Your task to perform on an android device: Open privacy settings Image 0: 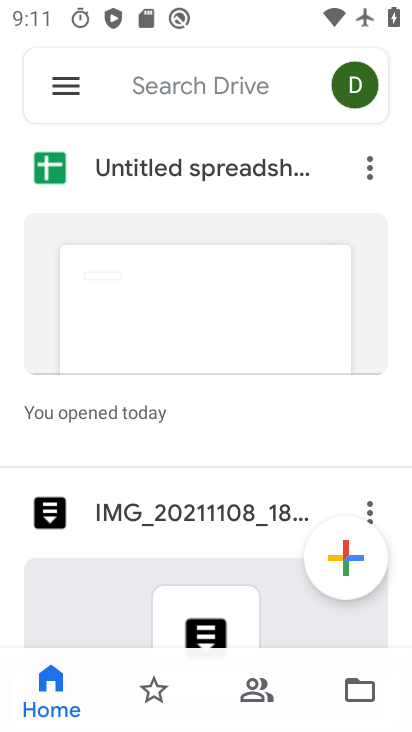
Step 0: press home button
Your task to perform on an android device: Open privacy settings Image 1: 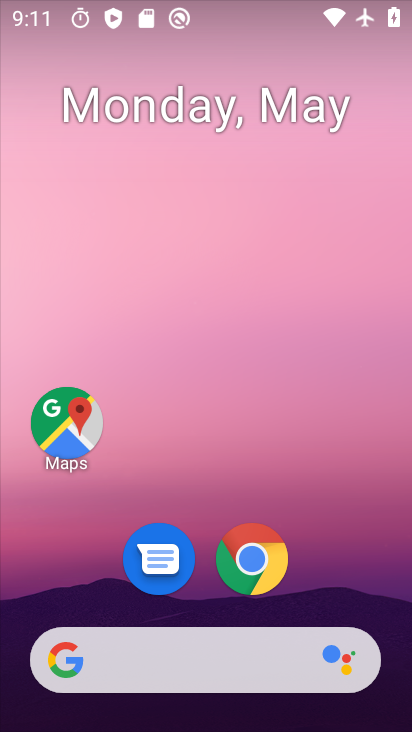
Step 1: drag from (331, 572) to (321, 55)
Your task to perform on an android device: Open privacy settings Image 2: 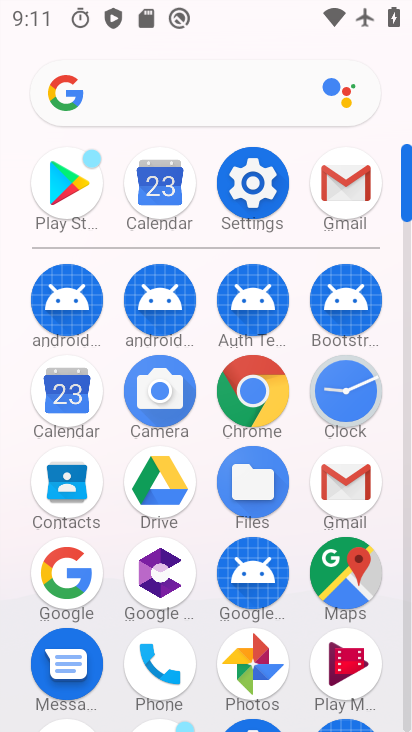
Step 2: click (254, 184)
Your task to perform on an android device: Open privacy settings Image 3: 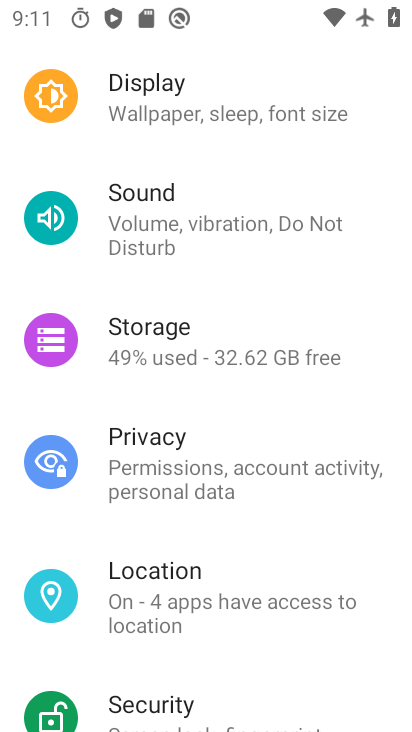
Step 3: click (162, 450)
Your task to perform on an android device: Open privacy settings Image 4: 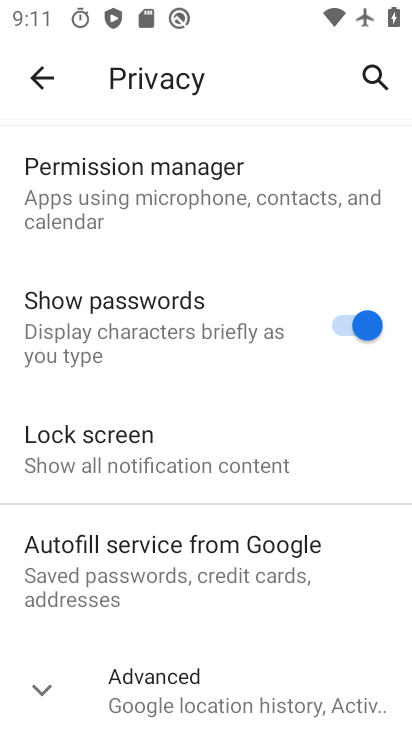
Step 4: task complete